Your task to perform on an android device: turn on javascript in the chrome app Image 0: 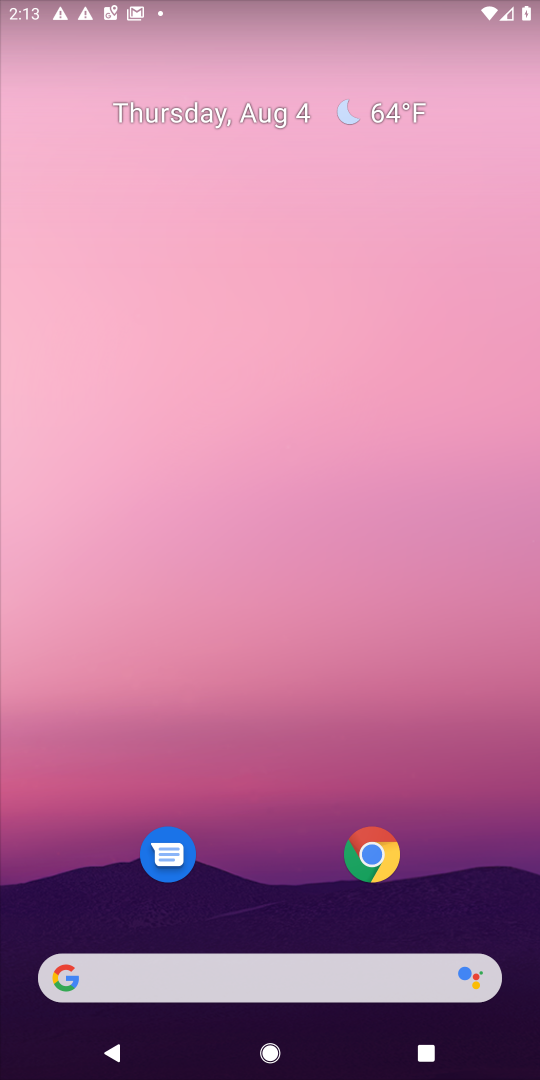
Step 0: click (380, 868)
Your task to perform on an android device: turn on javascript in the chrome app Image 1: 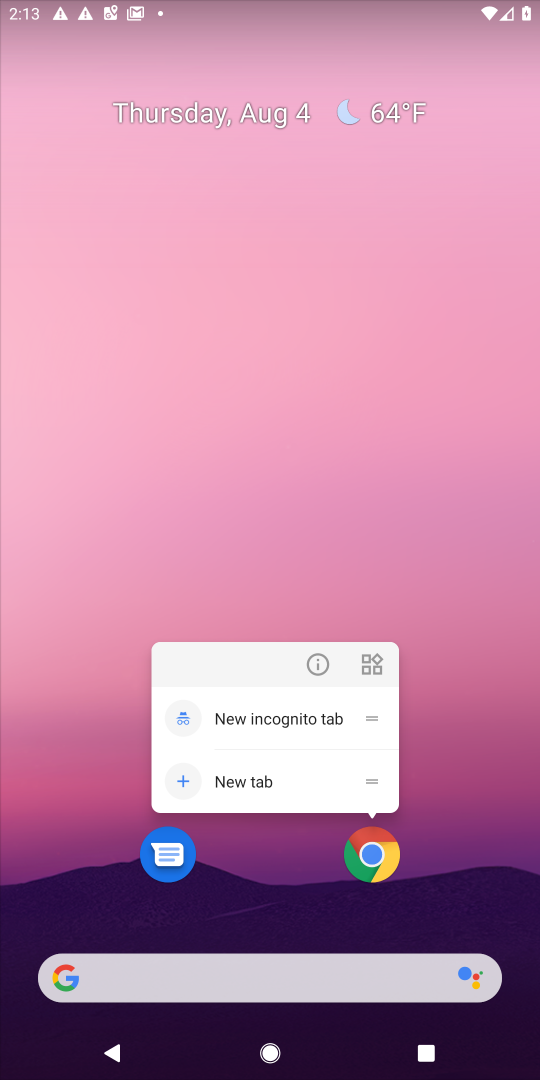
Step 1: click (377, 857)
Your task to perform on an android device: turn on javascript in the chrome app Image 2: 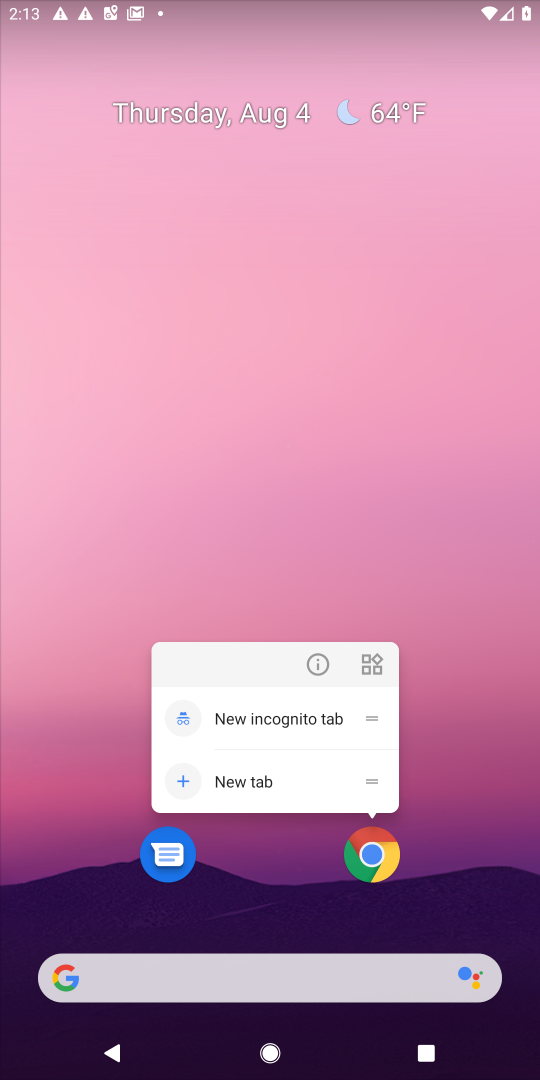
Step 2: click (376, 869)
Your task to perform on an android device: turn on javascript in the chrome app Image 3: 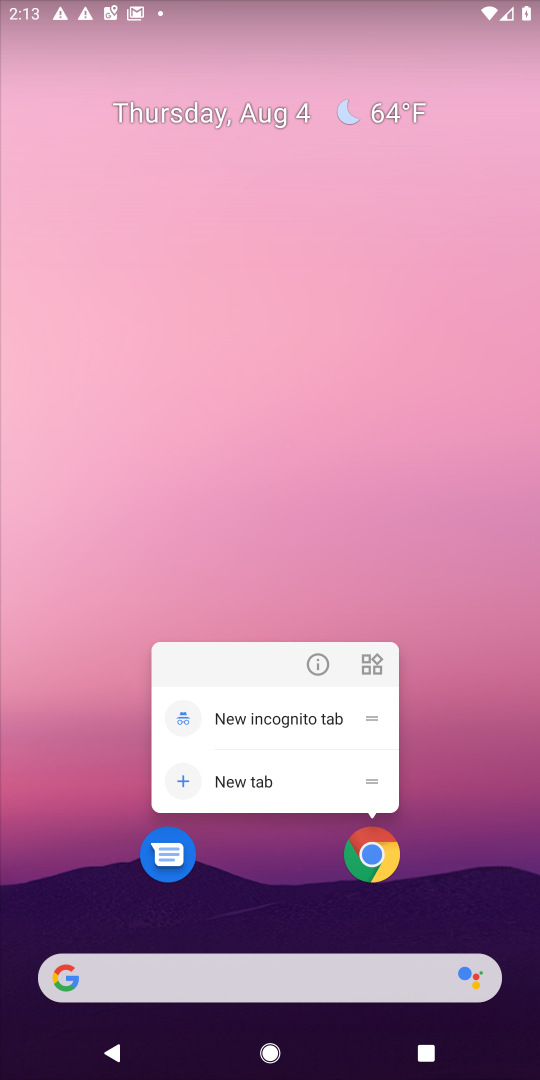
Step 3: click (365, 859)
Your task to perform on an android device: turn on javascript in the chrome app Image 4: 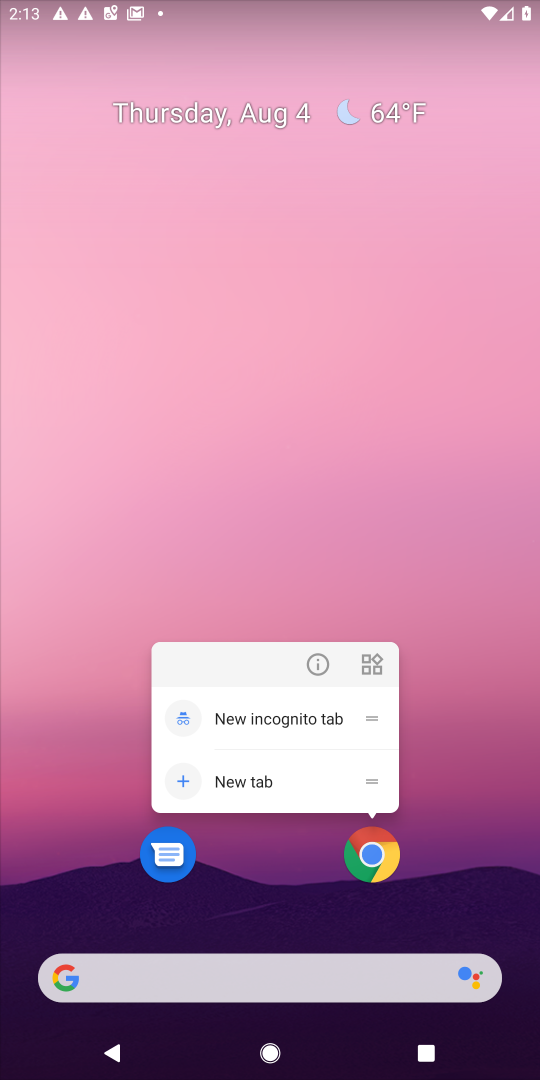
Step 4: click (368, 849)
Your task to perform on an android device: turn on javascript in the chrome app Image 5: 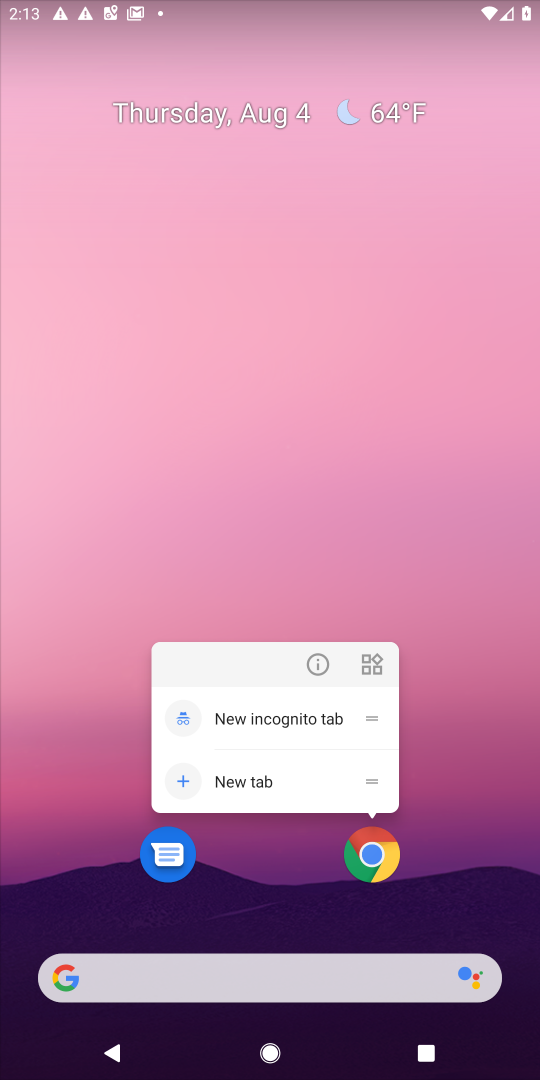
Step 5: click (381, 856)
Your task to perform on an android device: turn on javascript in the chrome app Image 6: 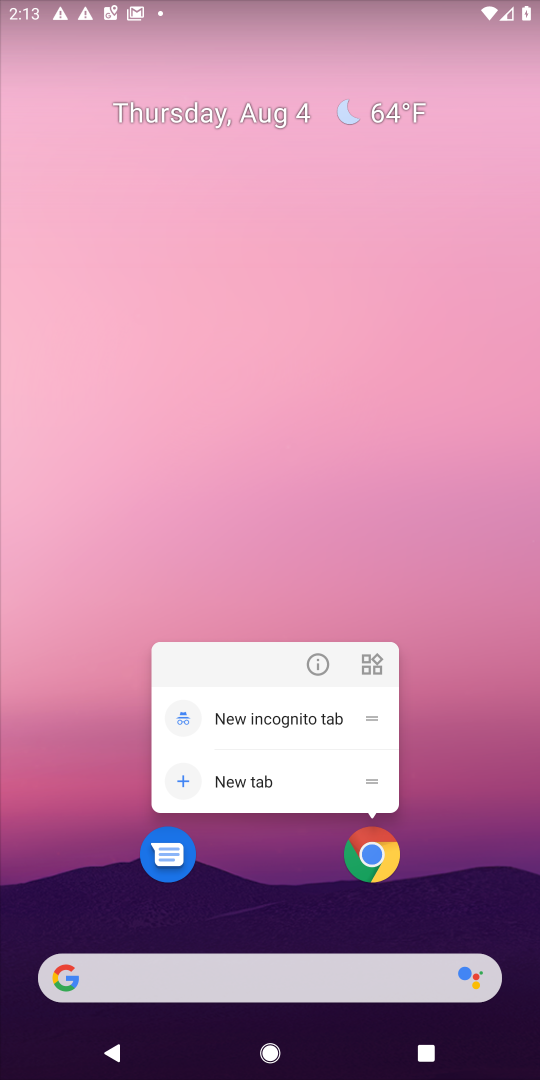
Step 6: click (381, 866)
Your task to perform on an android device: turn on javascript in the chrome app Image 7: 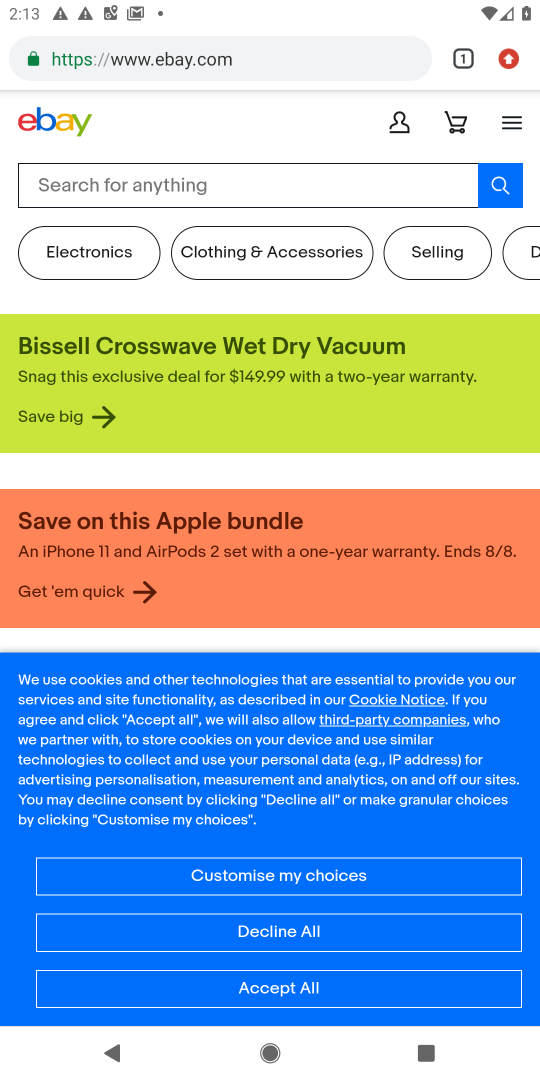
Step 7: click (506, 64)
Your task to perform on an android device: turn on javascript in the chrome app Image 8: 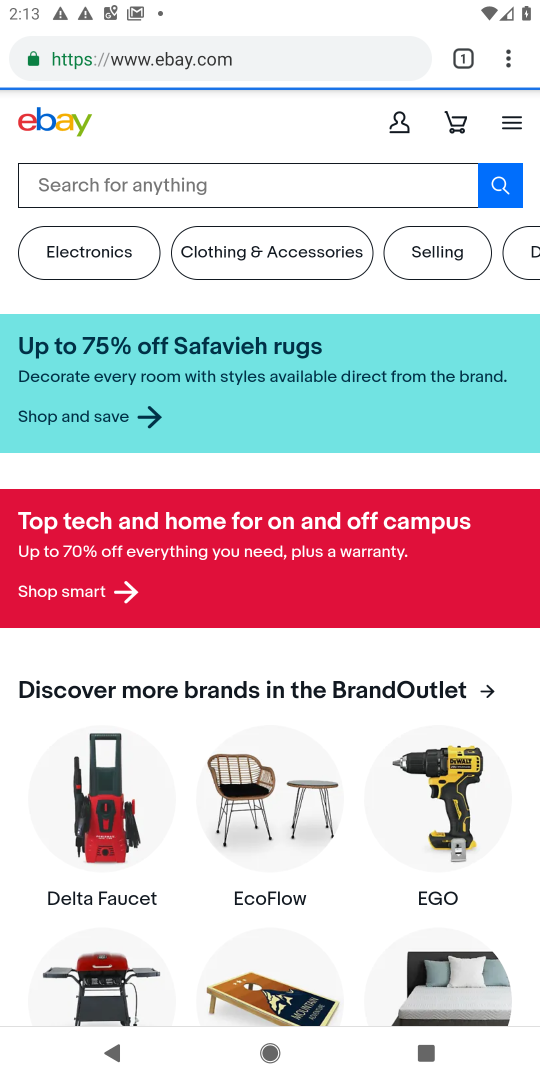
Step 8: click (509, 53)
Your task to perform on an android device: turn on javascript in the chrome app Image 9: 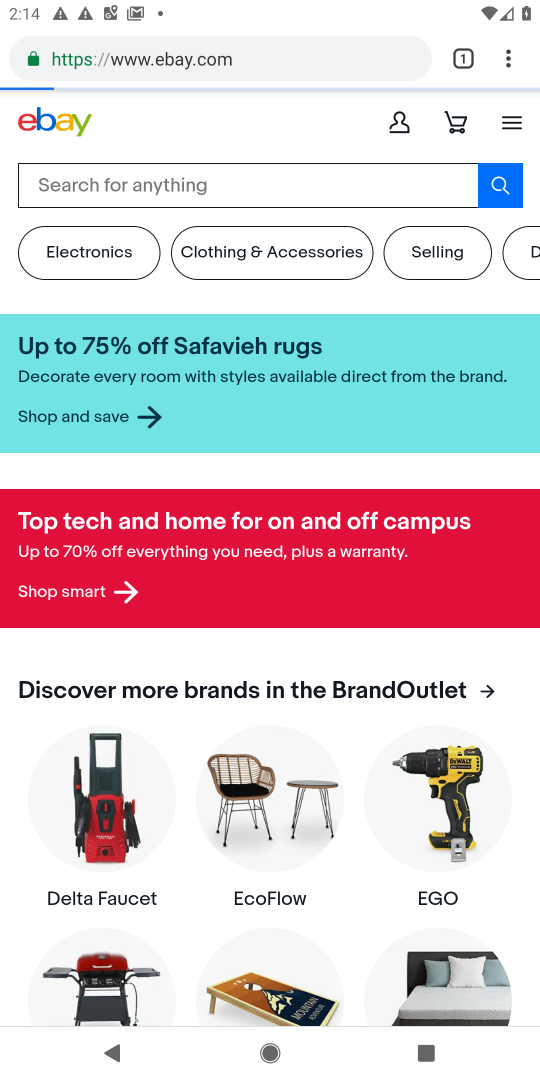
Step 9: click (513, 57)
Your task to perform on an android device: turn on javascript in the chrome app Image 10: 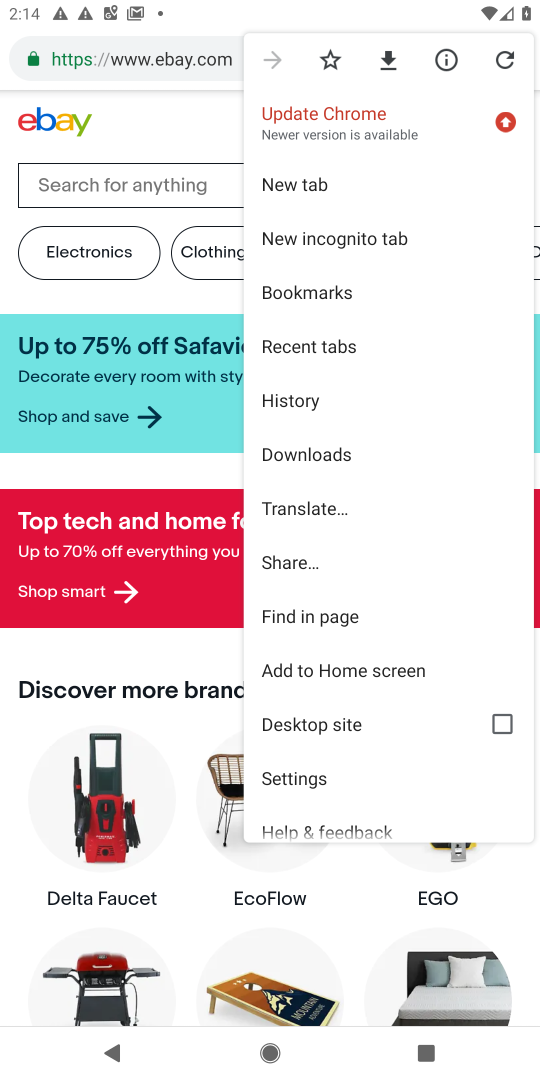
Step 10: click (298, 774)
Your task to perform on an android device: turn on javascript in the chrome app Image 11: 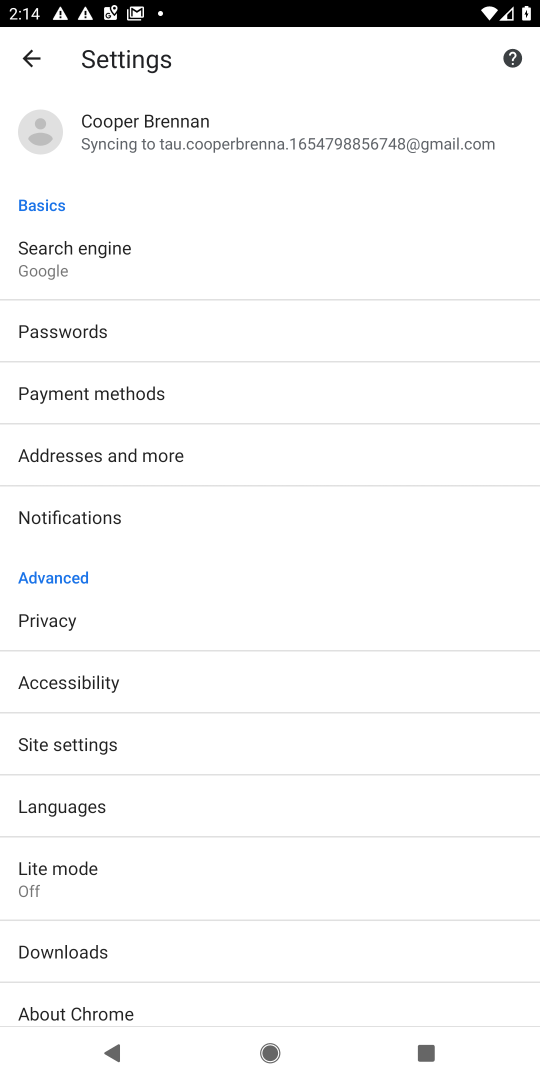
Step 11: click (49, 737)
Your task to perform on an android device: turn on javascript in the chrome app Image 12: 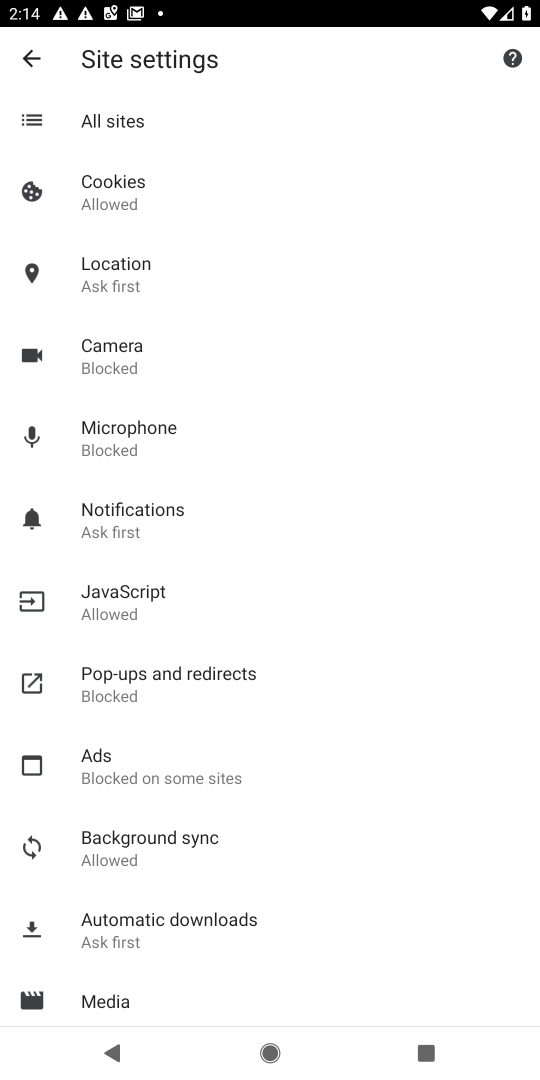
Step 12: click (107, 606)
Your task to perform on an android device: turn on javascript in the chrome app Image 13: 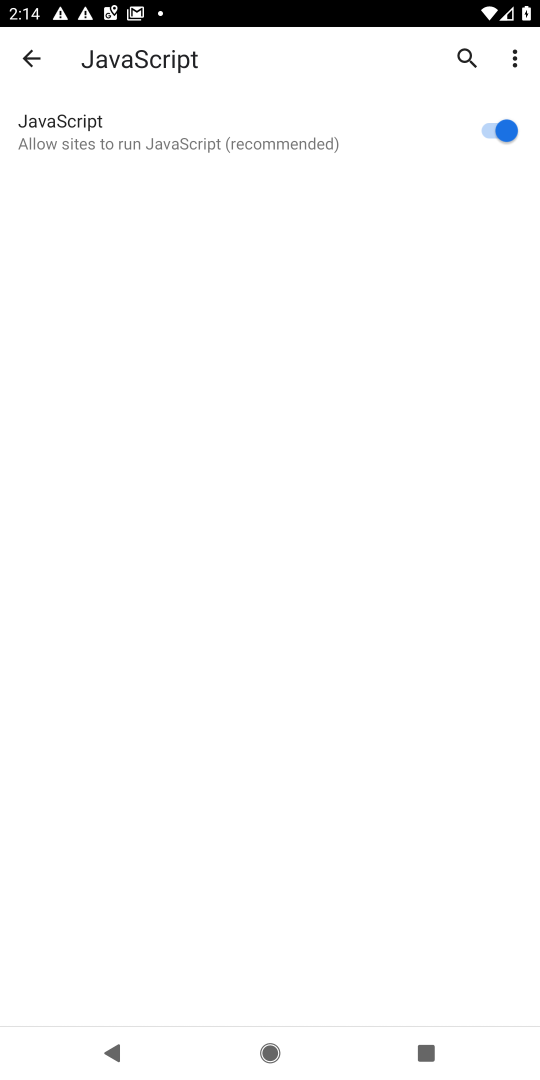
Step 13: task complete